Your task to perform on an android device: Check the news Image 0: 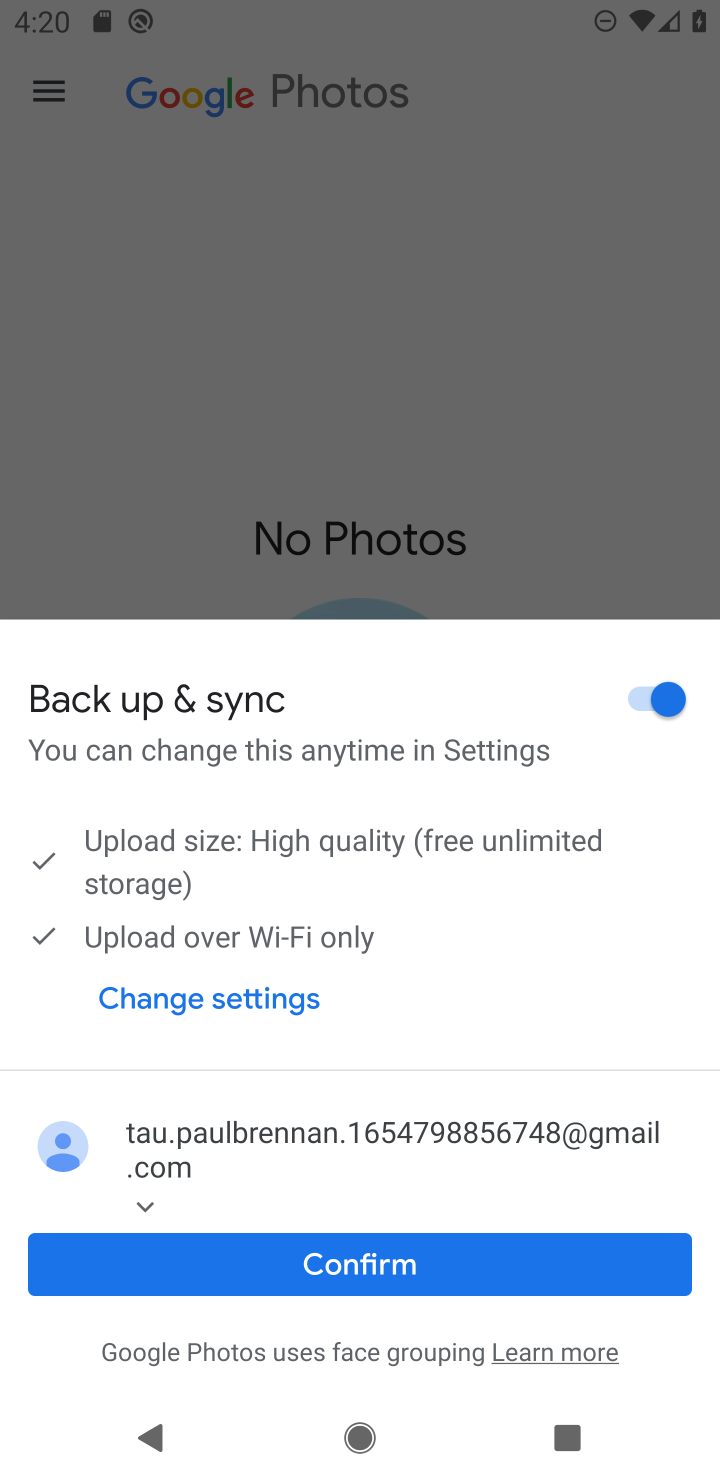
Step 0: press home button
Your task to perform on an android device: Check the news Image 1: 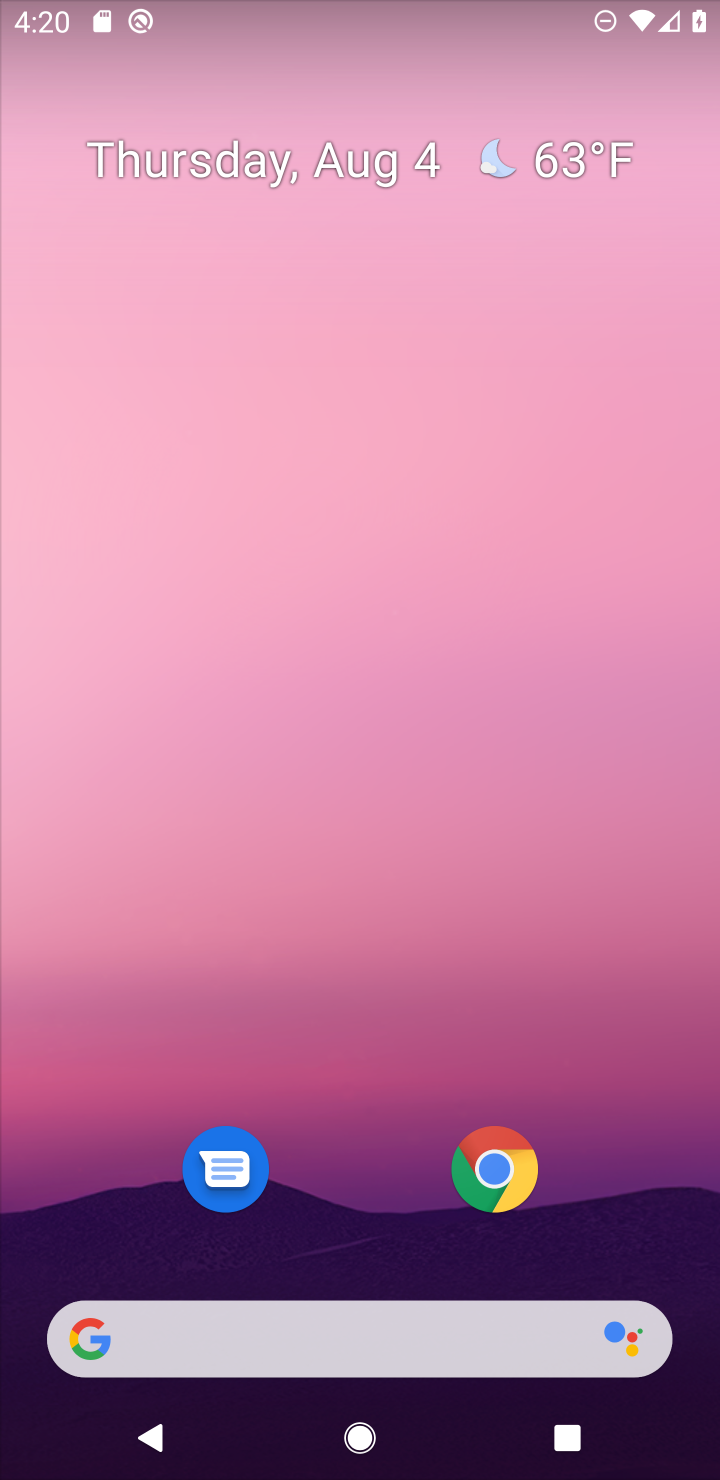
Step 1: click (338, 1345)
Your task to perform on an android device: Check the news Image 2: 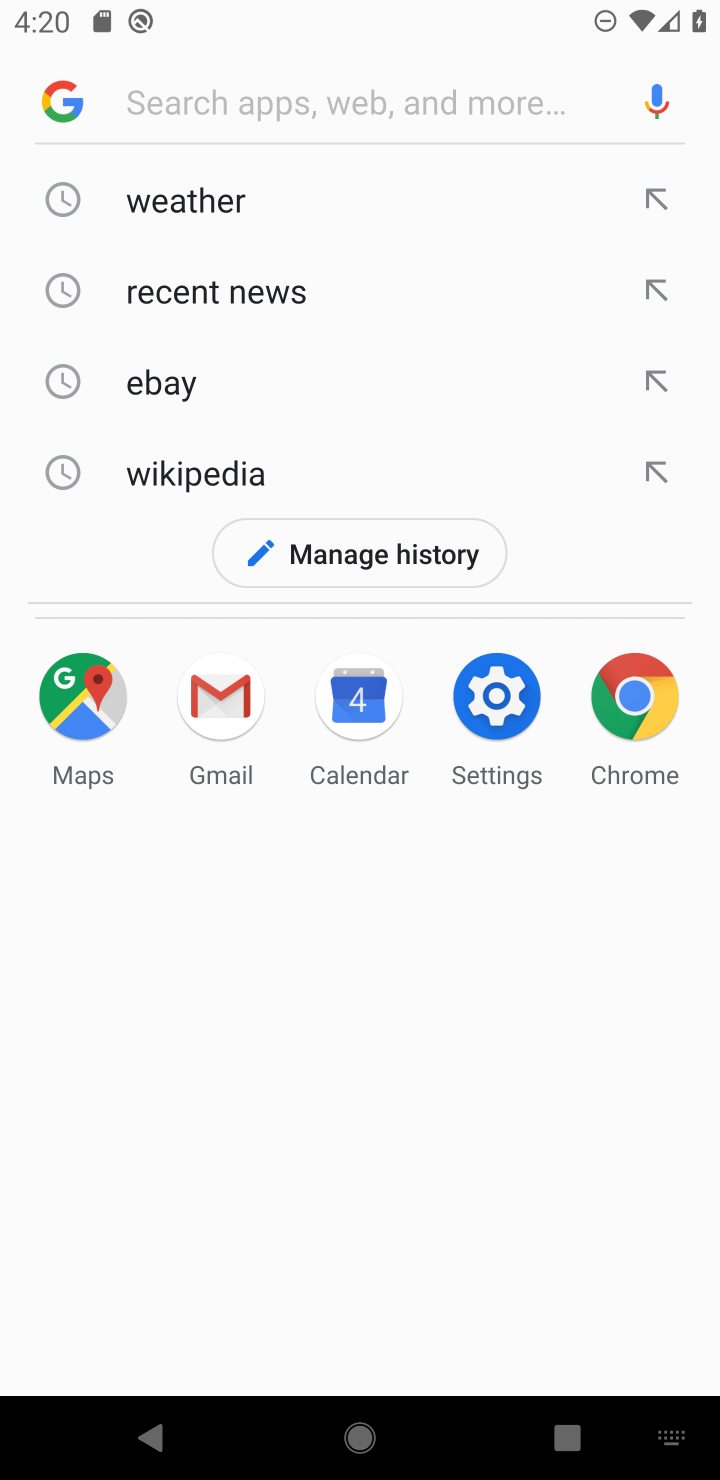
Step 2: type "news"
Your task to perform on an android device: Check the news Image 3: 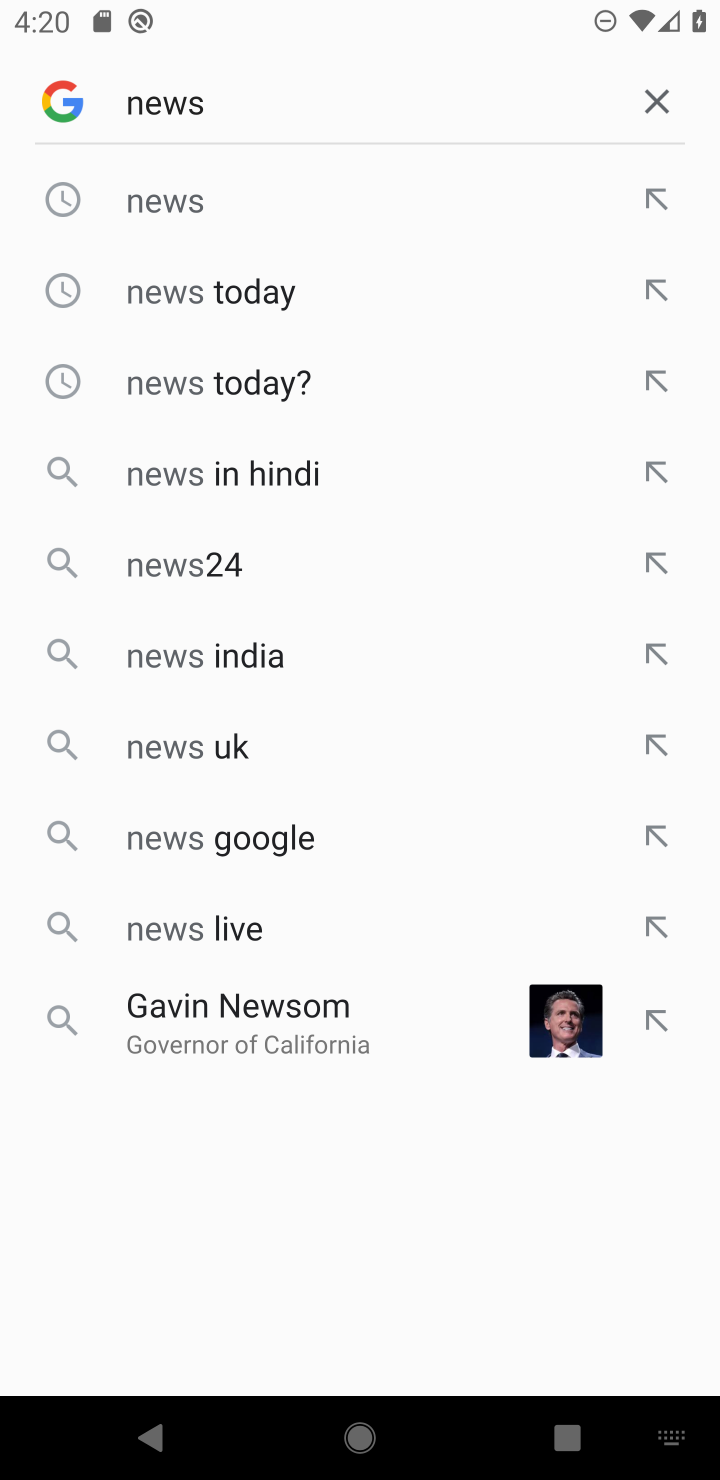
Step 3: click (181, 187)
Your task to perform on an android device: Check the news Image 4: 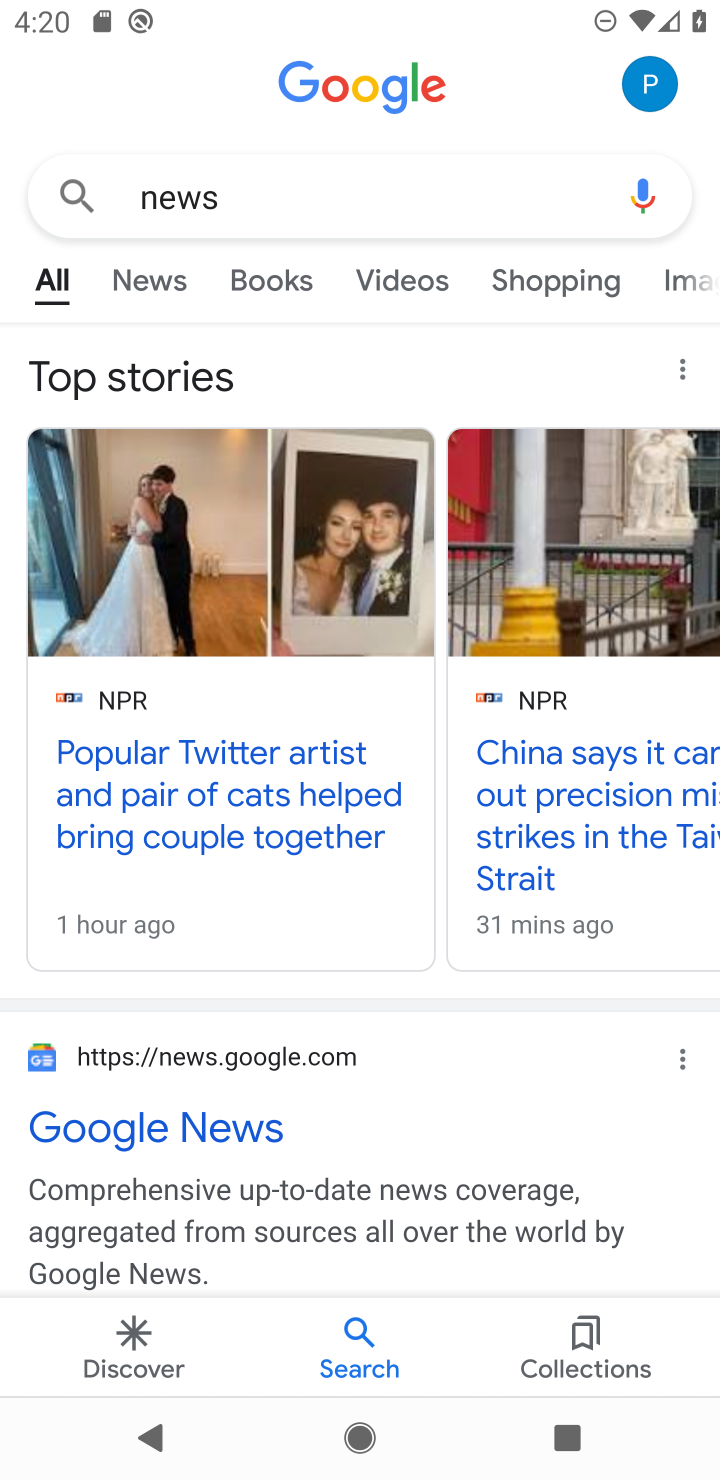
Step 4: task complete